Your task to perform on an android device: Search for sushi restaurants on Maps Image 0: 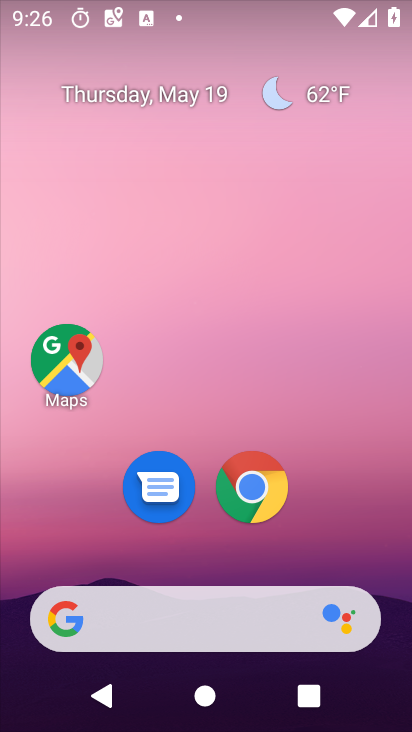
Step 0: click (72, 362)
Your task to perform on an android device: Search for sushi restaurants on Maps Image 1: 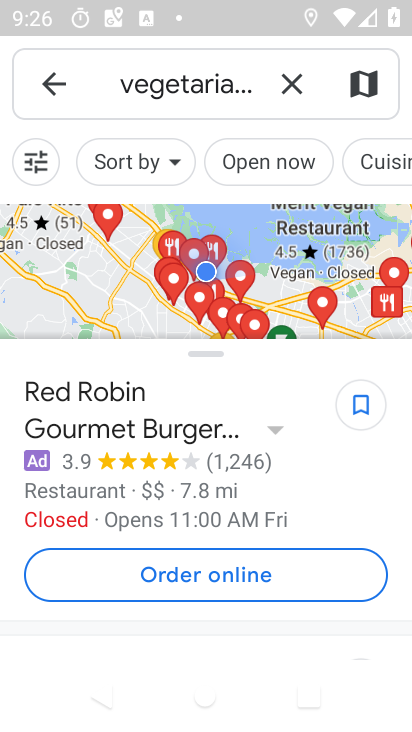
Step 1: click (288, 78)
Your task to perform on an android device: Search for sushi restaurants on Maps Image 2: 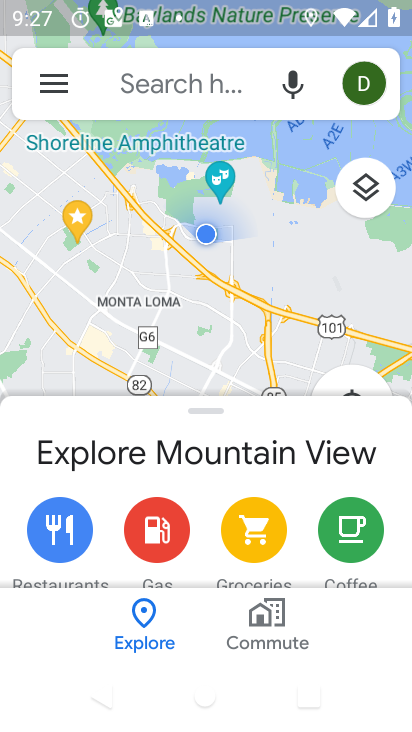
Step 2: click (175, 88)
Your task to perform on an android device: Search for sushi restaurants on Maps Image 3: 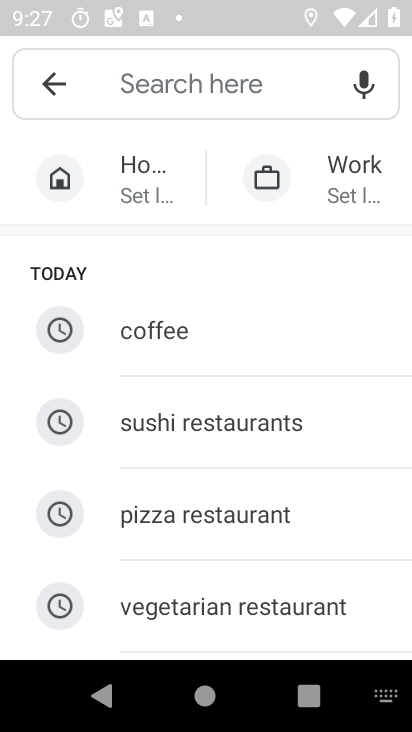
Step 3: click (291, 418)
Your task to perform on an android device: Search for sushi restaurants on Maps Image 4: 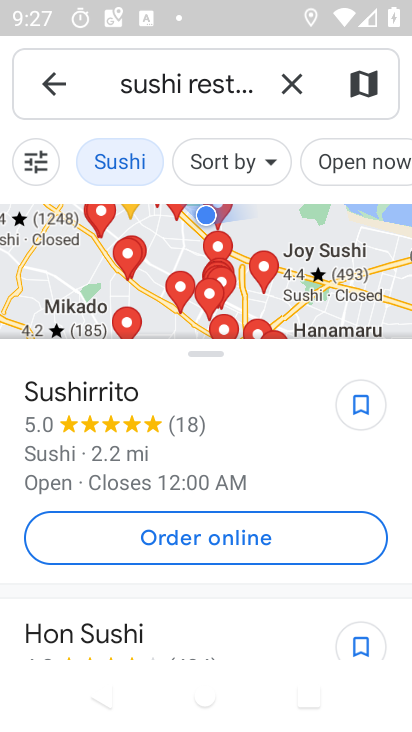
Step 4: task complete